Your task to perform on an android device: Check the news Image 0: 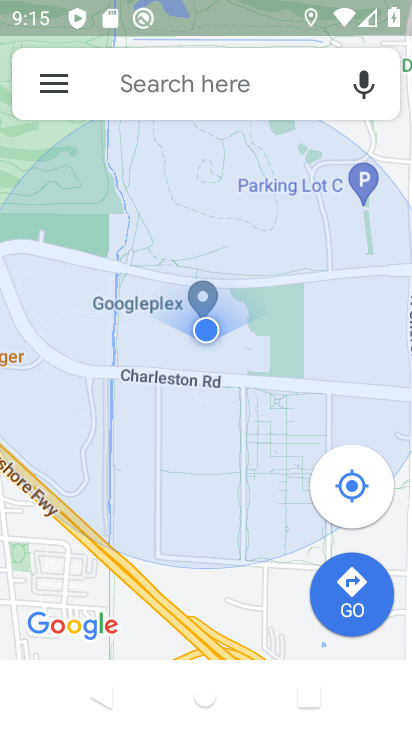
Step 0: press home button
Your task to perform on an android device: Check the news Image 1: 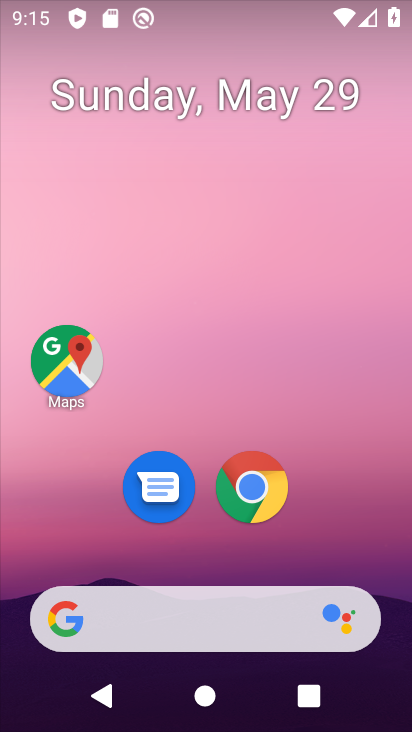
Step 1: drag from (302, 550) to (257, 158)
Your task to perform on an android device: Check the news Image 2: 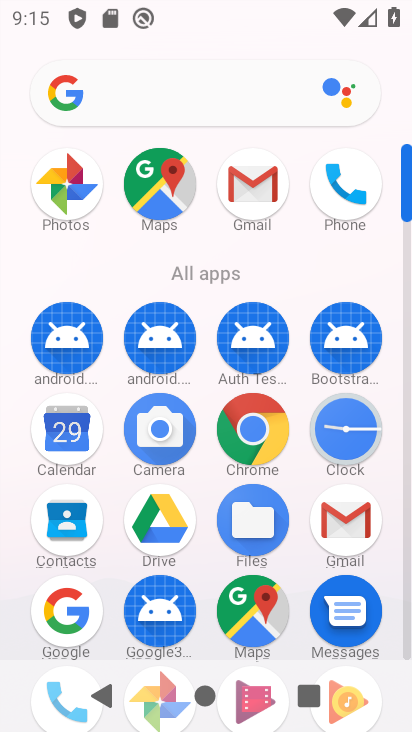
Step 2: click (60, 611)
Your task to perform on an android device: Check the news Image 3: 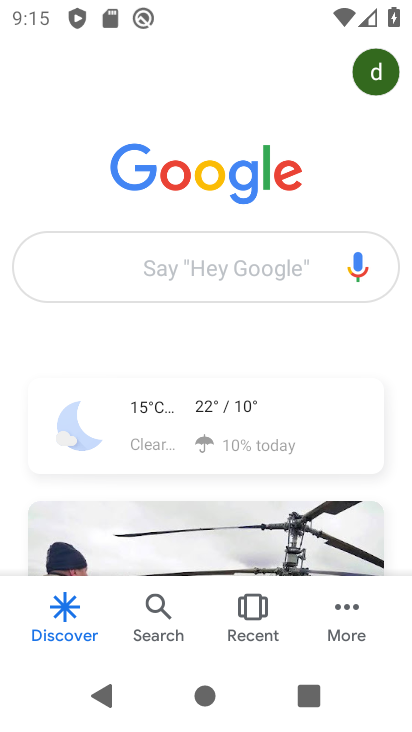
Step 3: click (170, 260)
Your task to perform on an android device: Check the news Image 4: 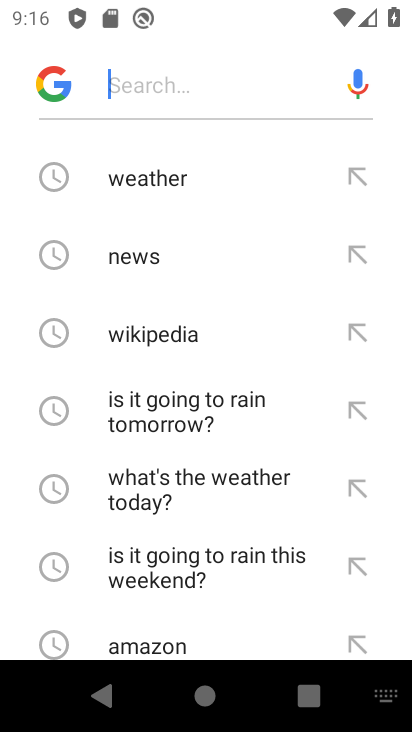
Step 4: type "news"
Your task to perform on an android device: Check the news Image 5: 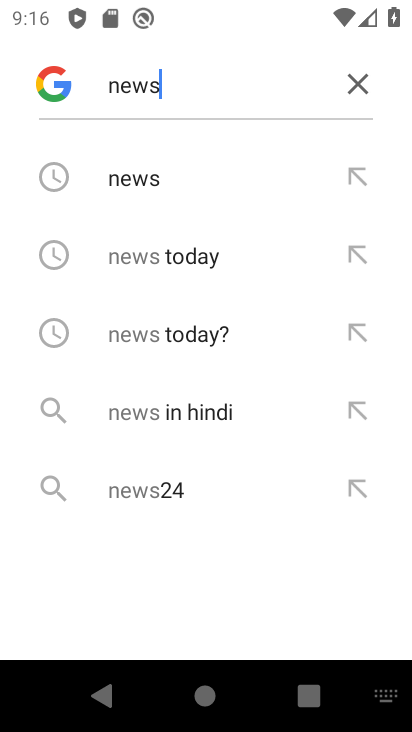
Step 5: click (132, 187)
Your task to perform on an android device: Check the news Image 6: 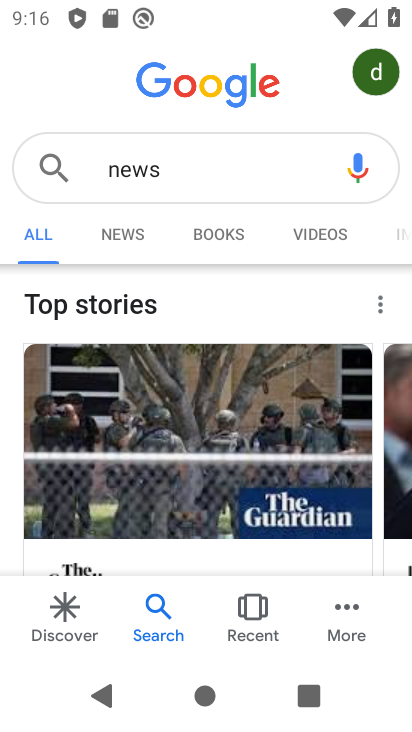
Step 6: task complete